Your task to perform on an android device: Do I have any events tomorrow? Image 0: 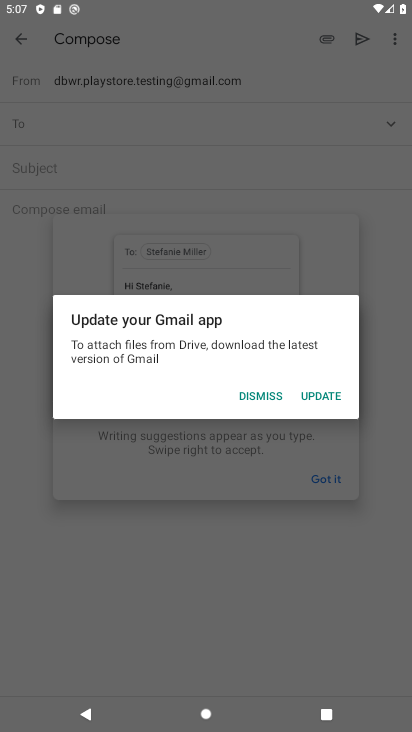
Step 0: press home button
Your task to perform on an android device: Do I have any events tomorrow? Image 1: 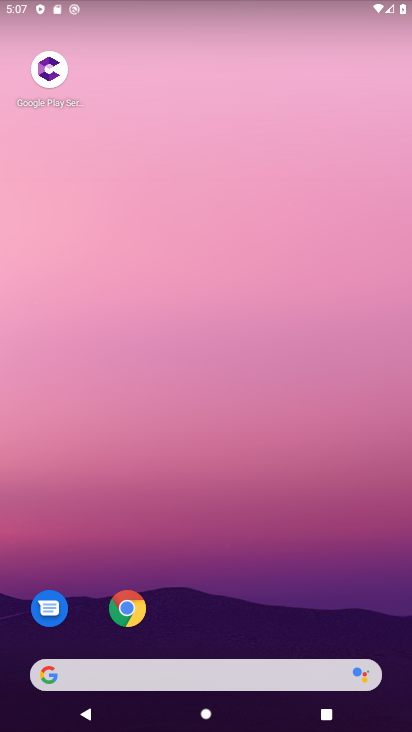
Step 1: drag from (338, 617) to (338, 18)
Your task to perform on an android device: Do I have any events tomorrow? Image 2: 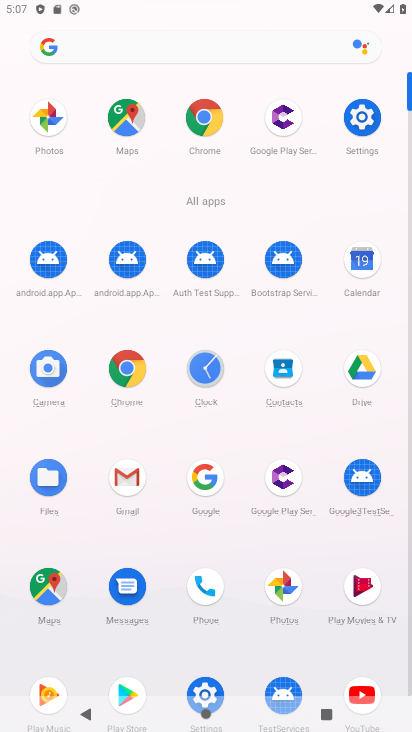
Step 2: click (360, 264)
Your task to perform on an android device: Do I have any events tomorrow? Image 3: 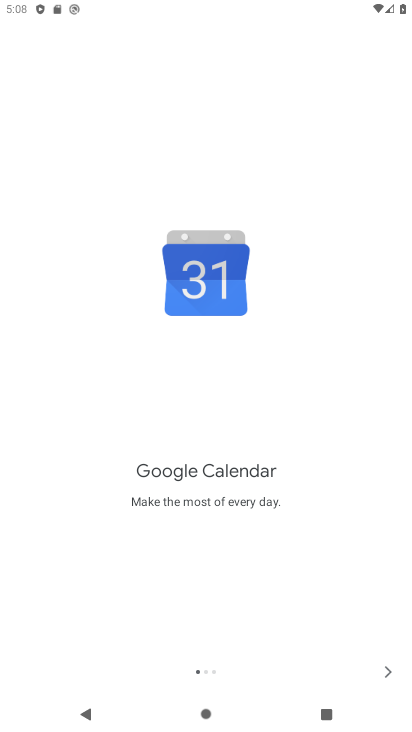
Step 3: click (390, 667)
Your task to perform on an android device: Do I have any events tomorrow? Image 4: 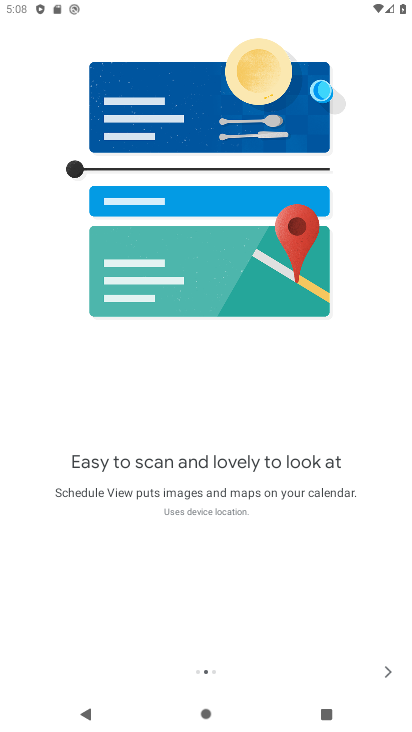
Step 4: click (390, 667)
Your task to perform on an android device: Do I have any events tomorrow? Image 5: 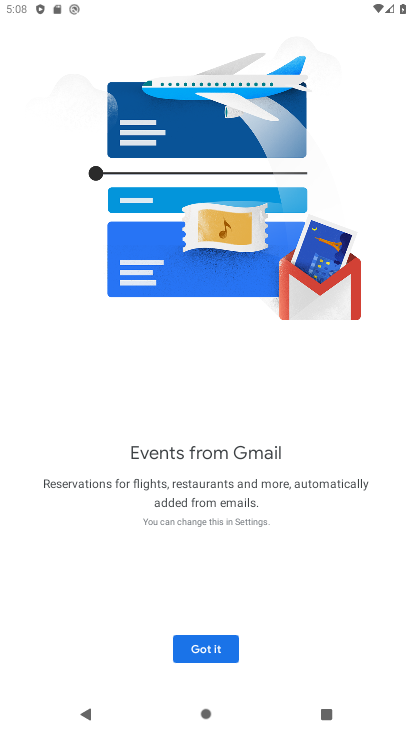
Step 5: click (203, 652)
Your task to perform on an android device: Do I have any events tomorrow? Image 6: 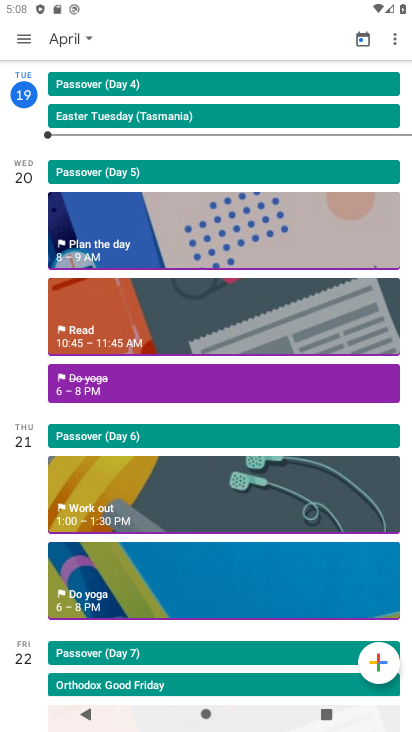
Step 6: click (132, 371)
Your task to perform on an android device: Do I have any events tomorrow? Image 7: 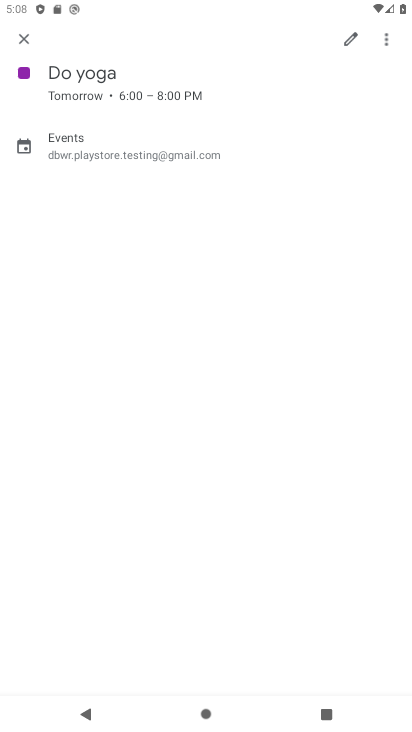
Step 7: task complete